Your task to perform on an android device: read, delete, or share a saved page in the chrome app Image 0: 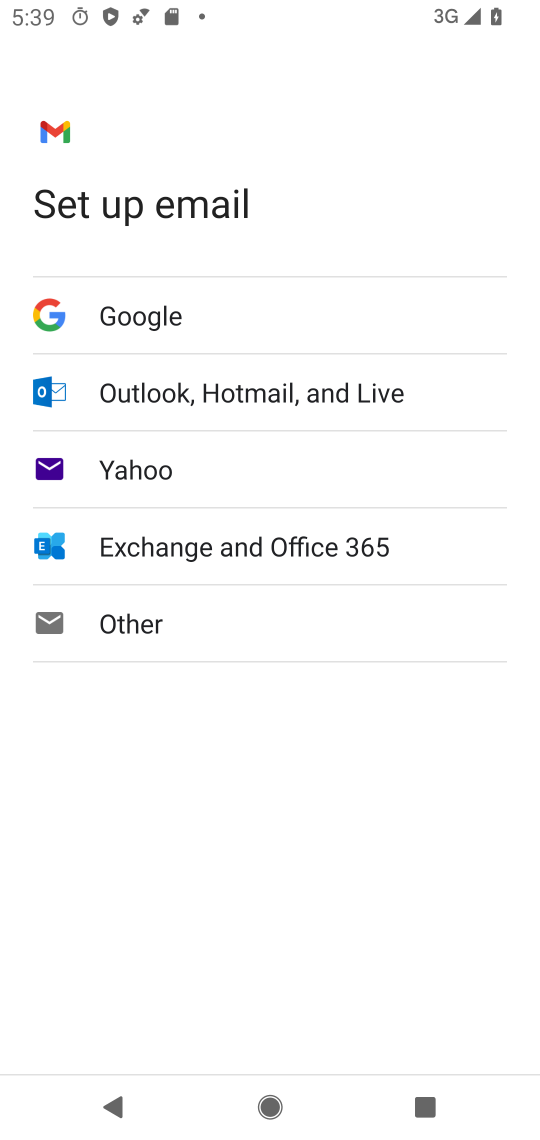
Step 0: press home button
Your task to perform on an android device: read, delete, or share a saved page in the chrome app Image 1: 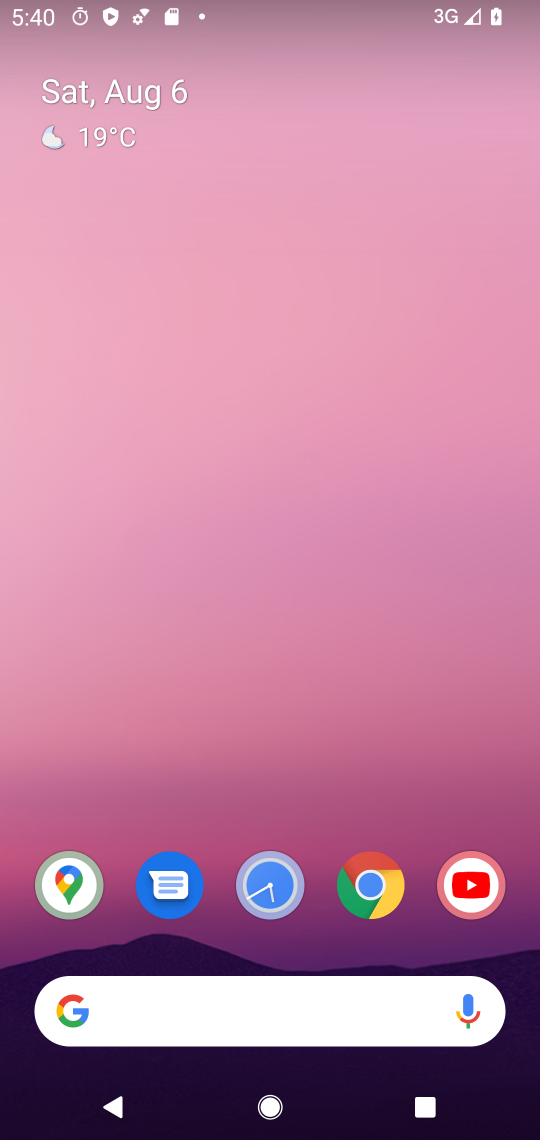
Step 1: drag from (409, 913) to (274, 34)
Your task to perform on an android device: read, delete, or share a saved page in the chrome app Image 2: 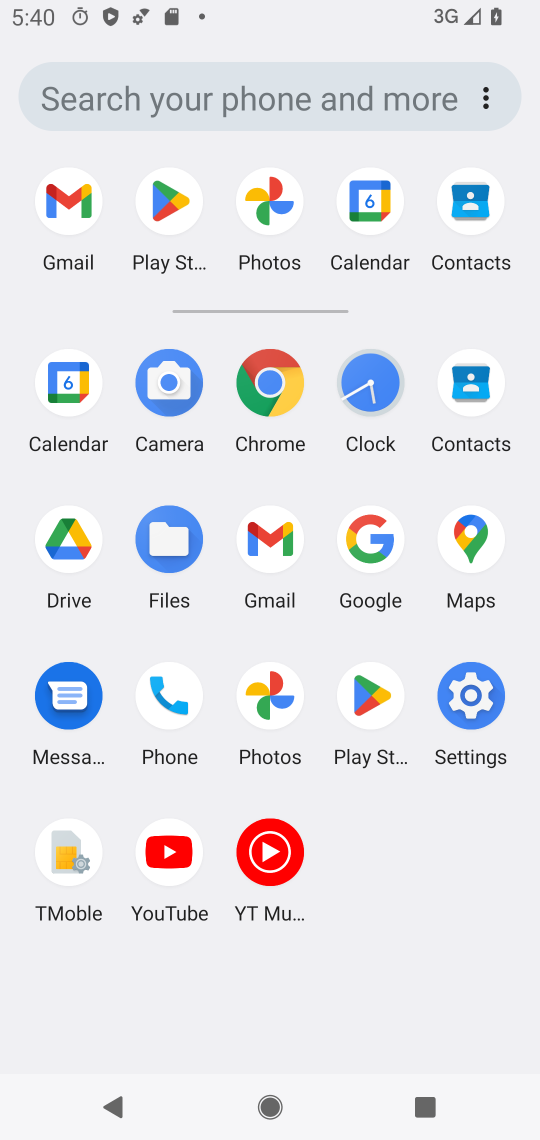
Step 2: click (276, 407)
Your task to perform on an android device: read, delete, or share a saved page in the chrome app Image 3: 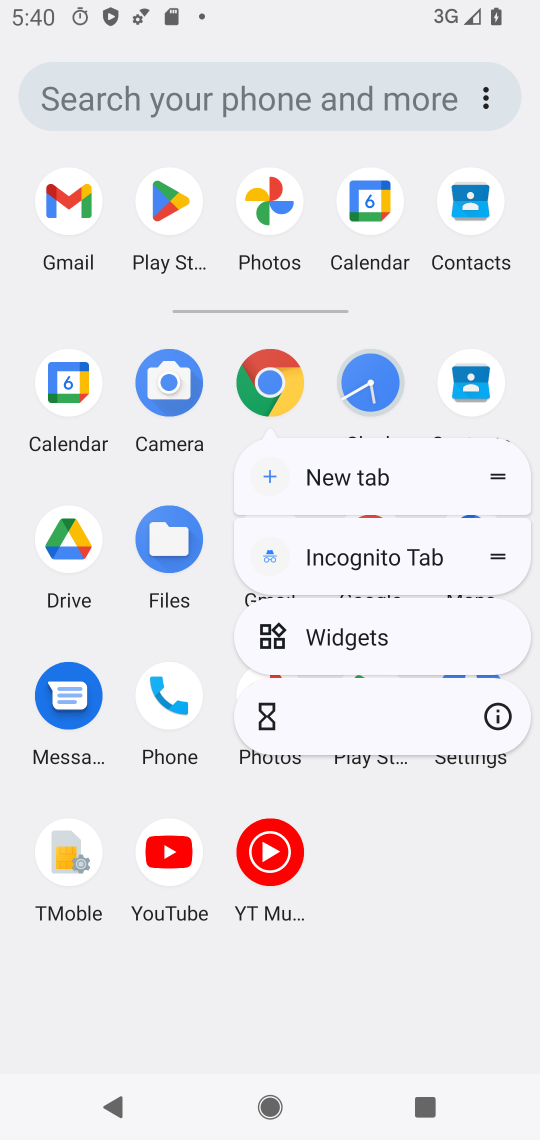
Step 3: click (276, 407)
Your task to perform on an android device: read, delete, or share a saved page in the chrome app Image 4: 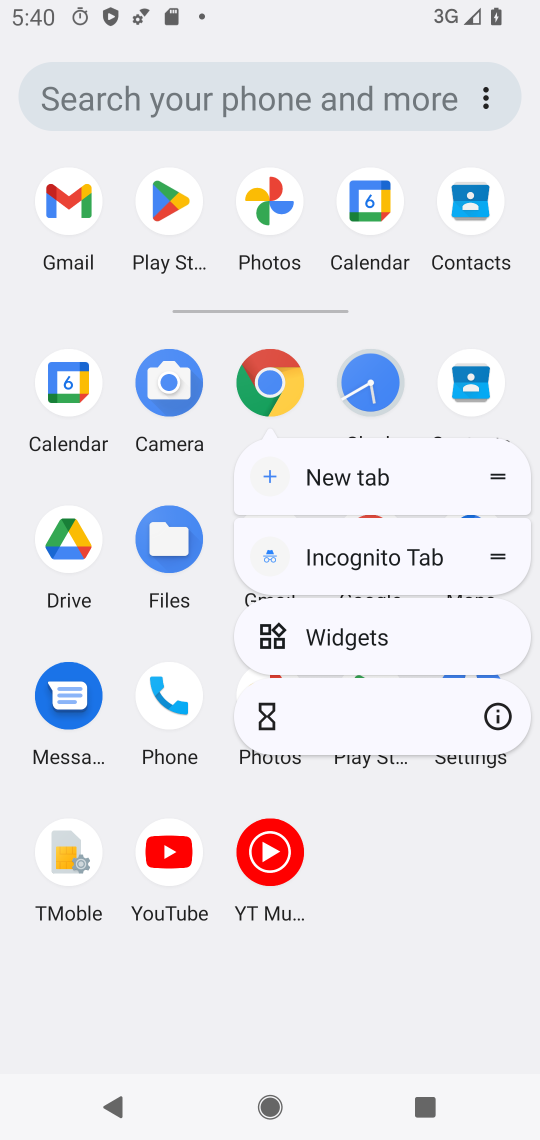
Step 4: click (276, 407)
Your task to perform on an android device: read, delete, or share a saved page in the chrome app Image 5: 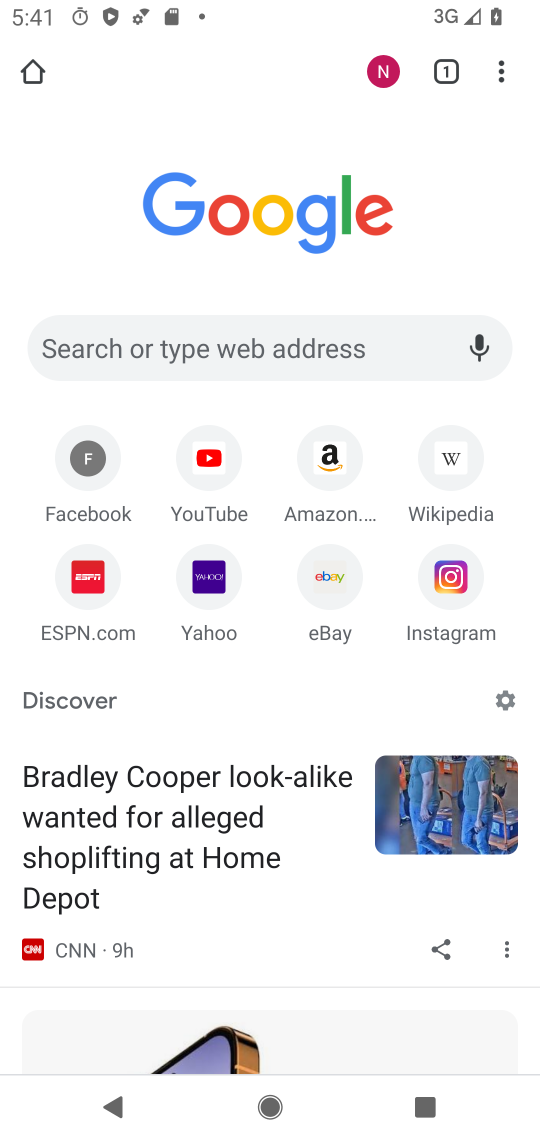
Step 5: task complete